Your task to perform on an android device: Open Google Chrome Image 0: 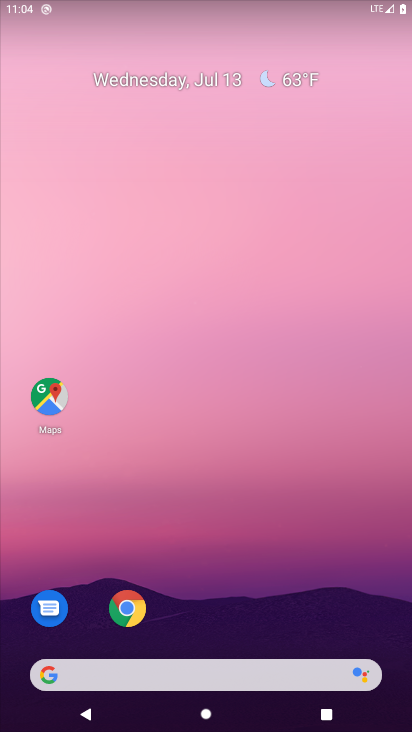
Step 0: click (143, 599)
Your task to perform on an android device: Open Google Chrome Image 1: 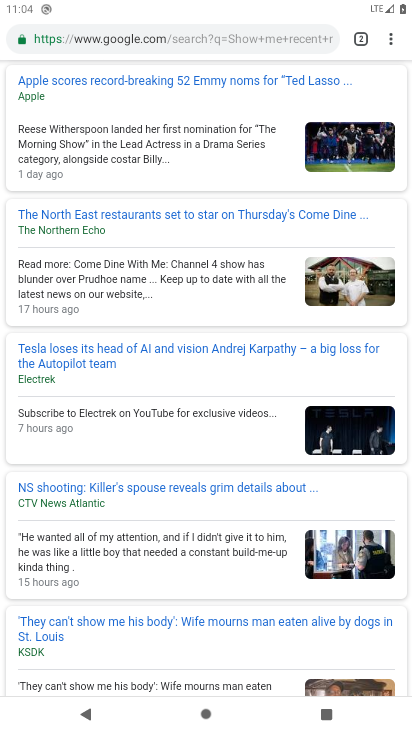
Step 1: task complete